Your task to perform on an android device: open the mobile data screen to see how much data has been used Image 0: 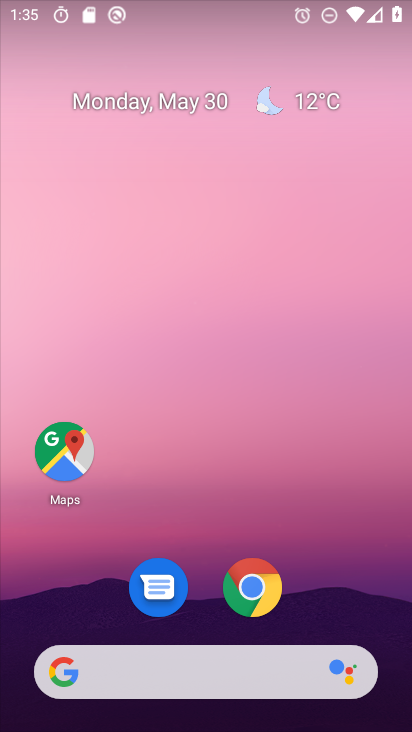
Step 0: drag from (351, 471) to (339, 91)
Your task to perform on an android device: open the mobile data screen to see how much data has been used Image 1: 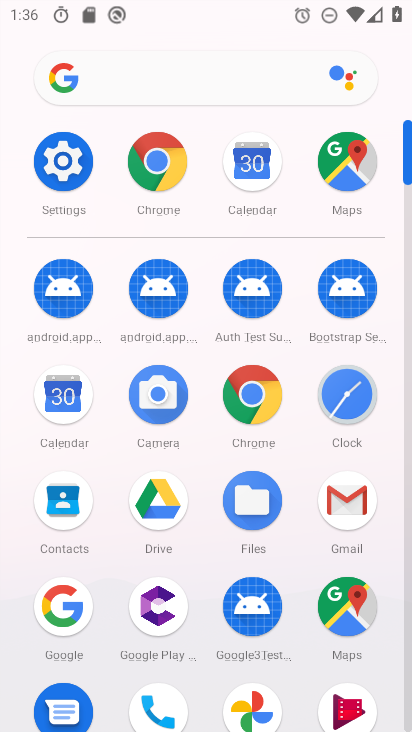
Step 1: click (77, 162)
Your task to perform on an android device: open the mobile data screen to see how much data has been used Image 2: 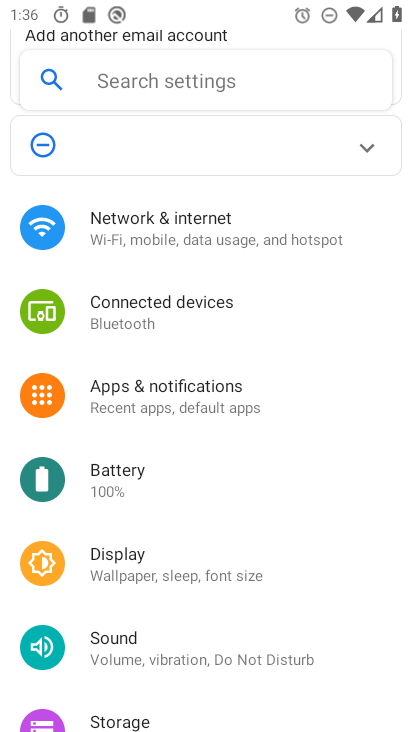
Step 2: click (172, 220)
Your task to perform on an android device: open the mobile data screen to see how much data has been used Image 3: 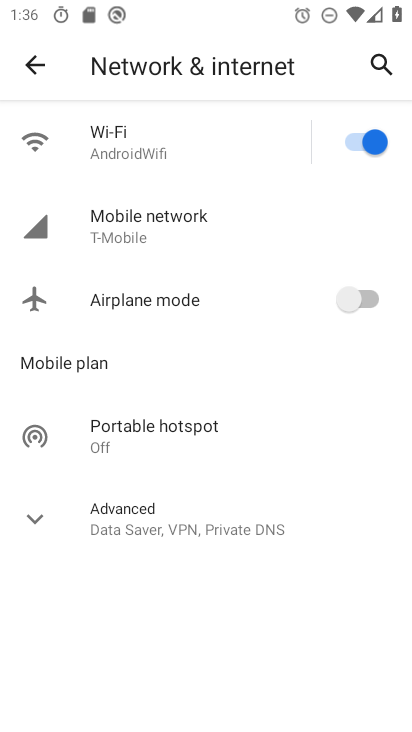
Step 3: click (161, 220)
Your task to perform on an android device: open the mobile data screen to see how much data has been used Image 4: 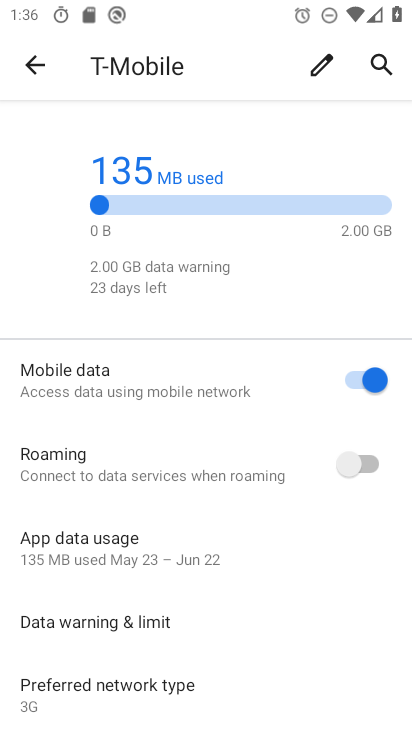
Step 4: task complete